Your task to perform on an android device: check battery use Image 0: 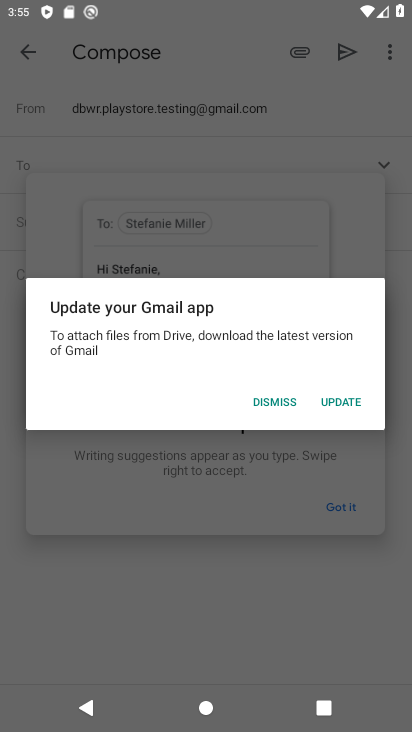
Step 0: press home button
Your task to perform on an android device: check battery use Image 1: 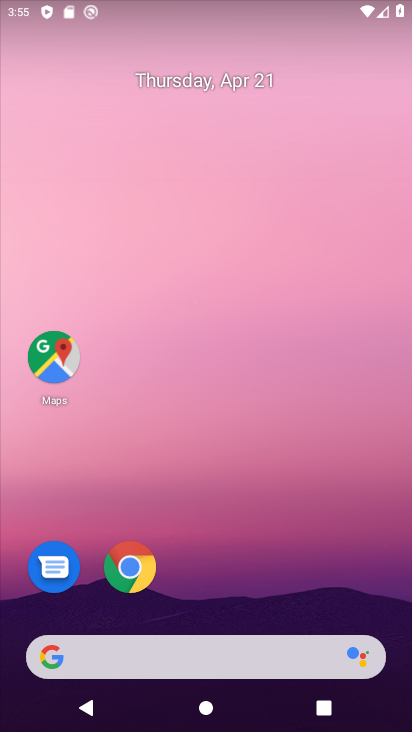
Step 1: drag from (212, 577) to (157, 41)
Your task to perform on an android device: check battery use Image 2: 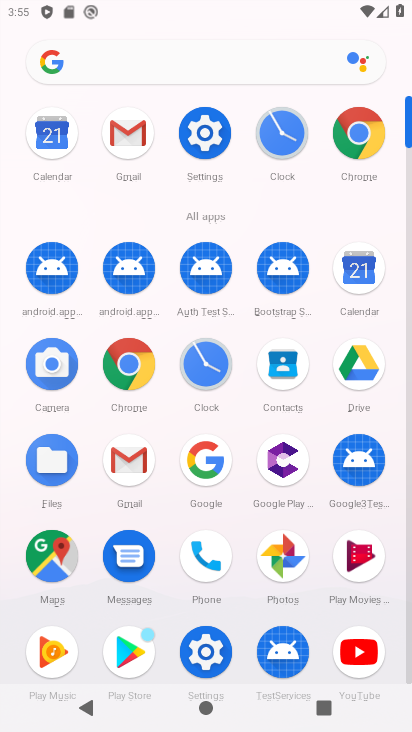
Step 2: click (202, 653)
Your task to perform on an android device: check battery use Image 3: 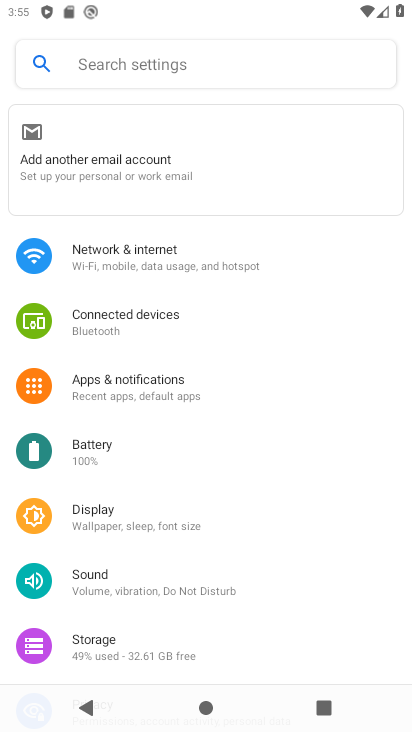
Step 3: click (106, 440)
Your task to perform on an android device: check battery use Image 4: 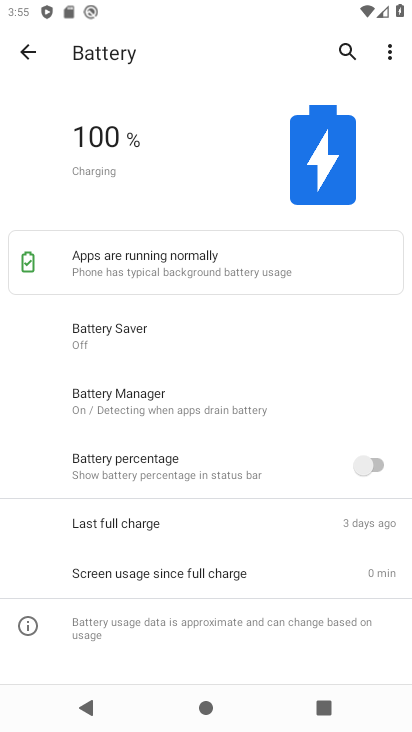
Step 4: task complete